Your task to perform on an android device: toggle javascript in the chrome app Image 0: 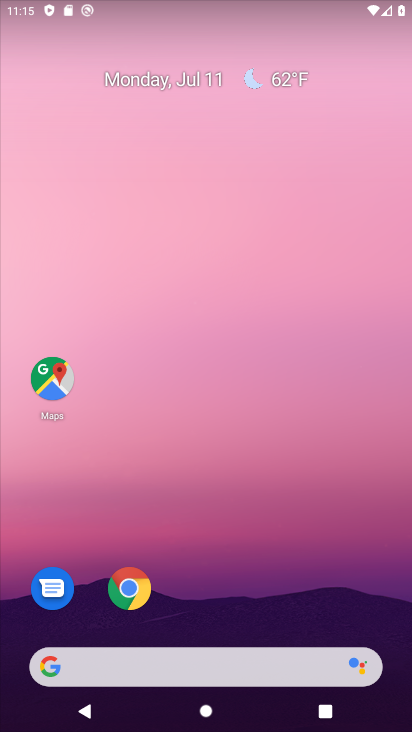
Step 0: click (124, 593)
Your task to perform on an android device: toggle javascript in the chrome app Image 1: 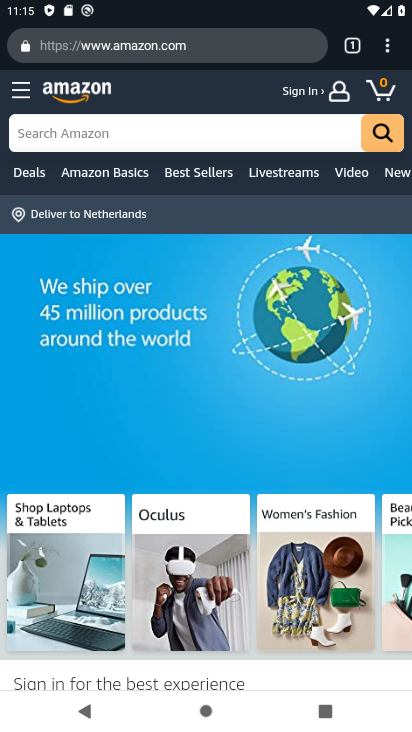
Step 1: click (392, 43)
Your task to perform on an android device: toggle javascript in the chrome app Image 2: 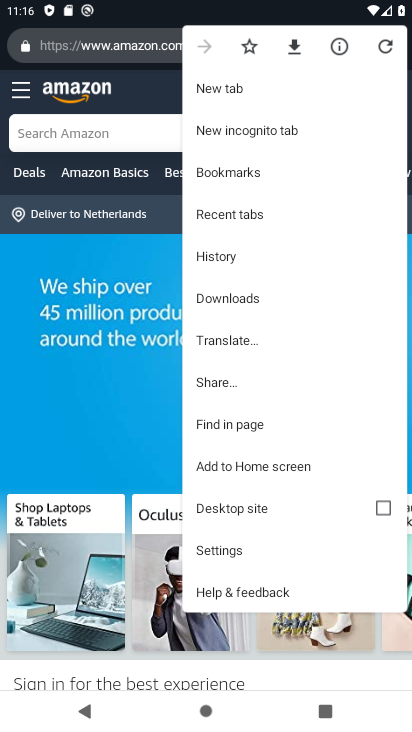
Step 2: click (392, 43)
Your task to perform on an android device: toggle javascript in the chrome app Image 3: 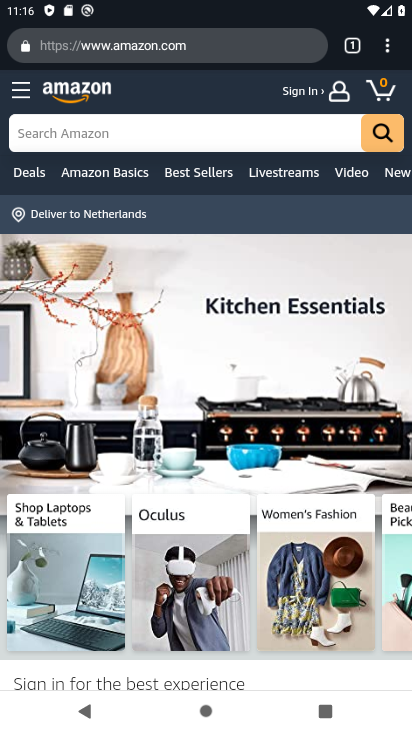
Step 3: click (390, 42)
Your task to perform on an android device: toggle javascript in the chrome app Image 4: 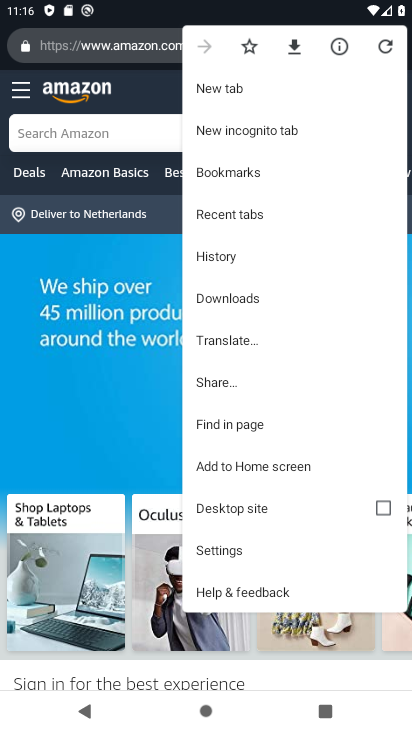
Step 4: click (223, 555)
Your task to perform on an android device: toggle javascript in the chrome app Image 5: 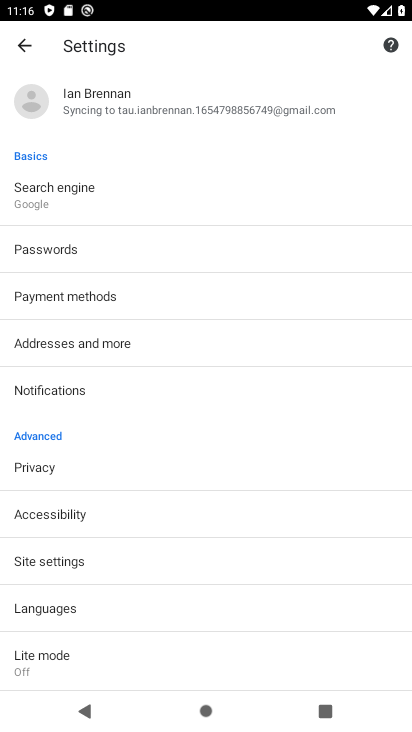
Step 5: click (60, 558)
Your task to perform on an android device: toggle javascript in the chrome app Image 6: 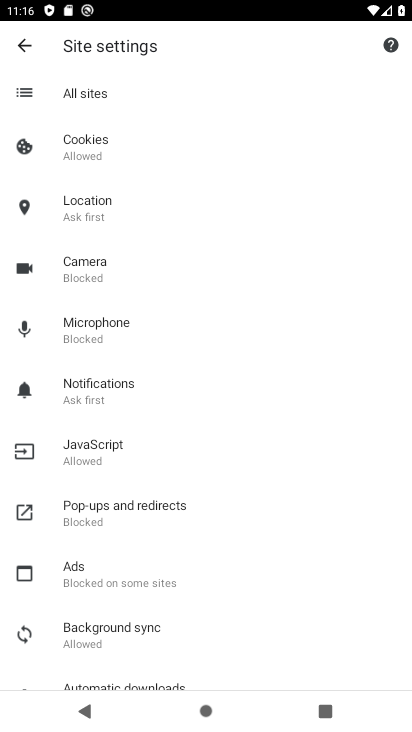
Step 6: click (126, 458)
Your task to perform on an android device: toggle javascript in the chrome app Image 7: 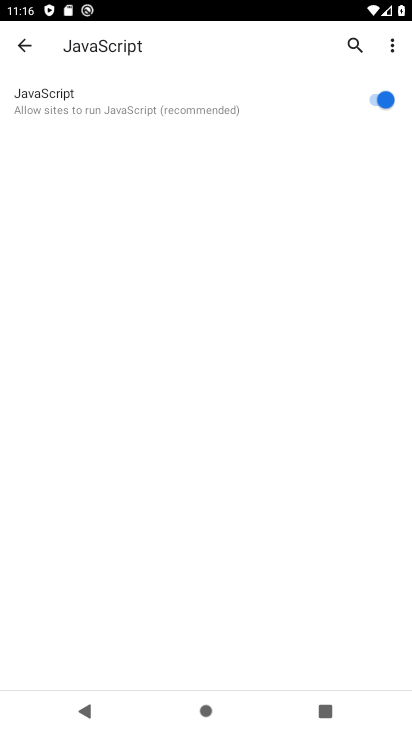
Step 7: click (379, 99)
Your task to perform on an android device: toggle javascript in the chrome app Image 8: 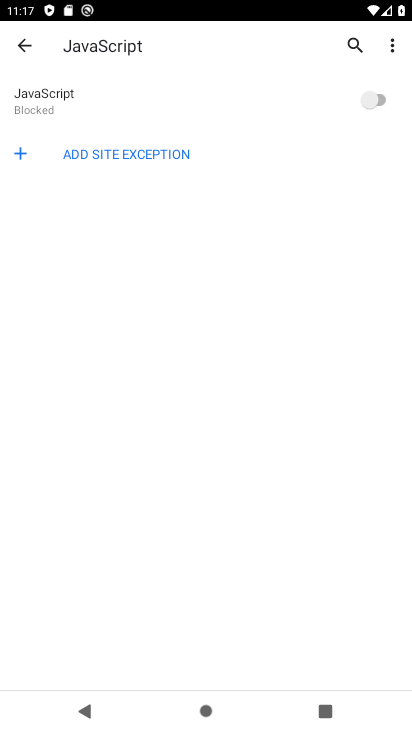
Step 8: task complete